Your task to perform on an android device: Do I have any events this weekend? Image 0: 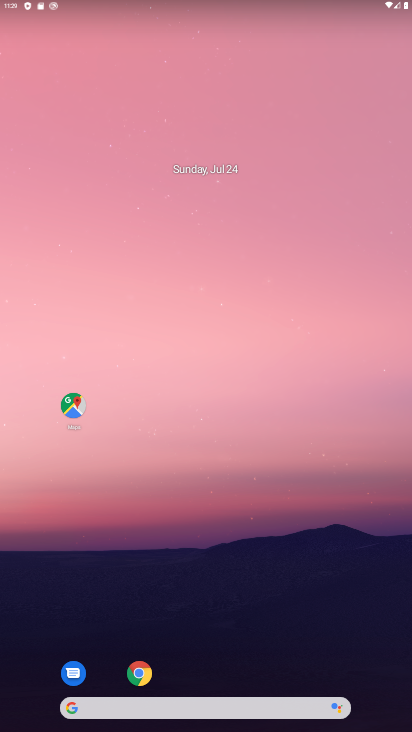
Step 0: drag from (241, 722) to (397, 417)
Your task to perform on an android device: Do I have any events this weekend? Image 1: 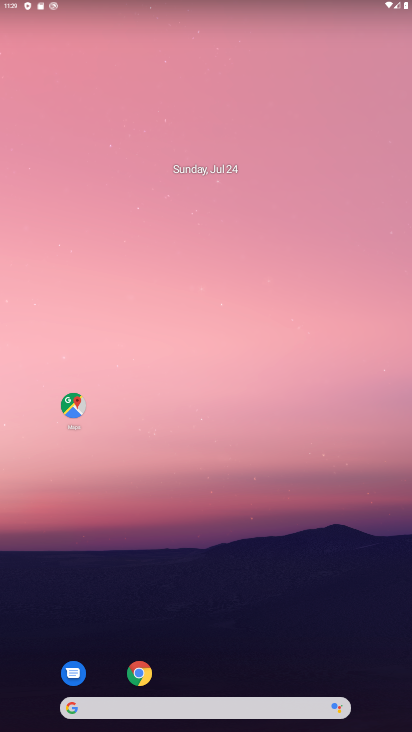
Step 1: drag from (171, 639) to (344, 236)
Your task to perform on an android device: Do I have any events this weekend? Image 2: 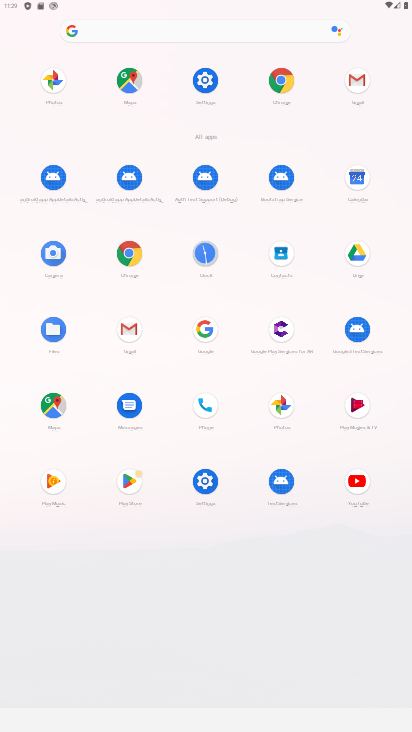
Step 2: click (352, 180)
Your task to perform on an android device: Do I have any events this weekend? Image 3: 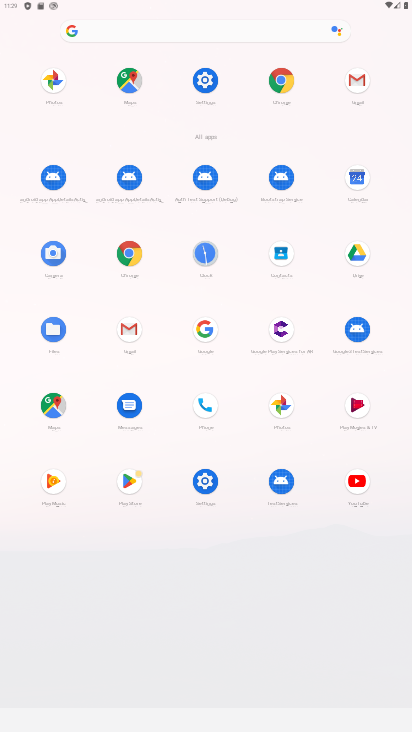
Step 3: click (352, 180)
Your task to perform on an android device: Do I have any events this weekend? Image 4: 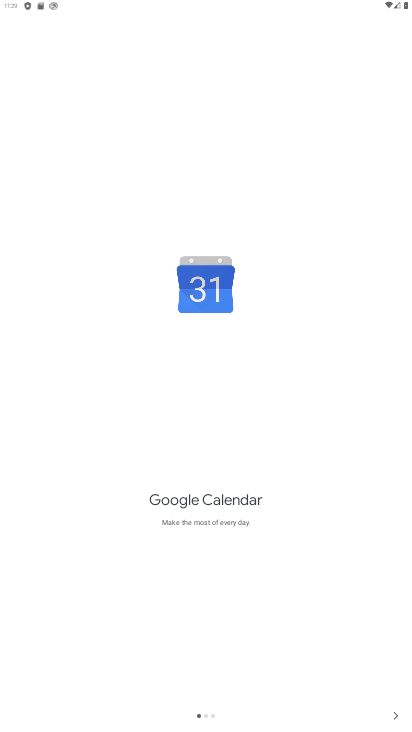
Step 4: click (384, 711)
Your task to perform on an android device: Do I have any events this weekend? Image 5: 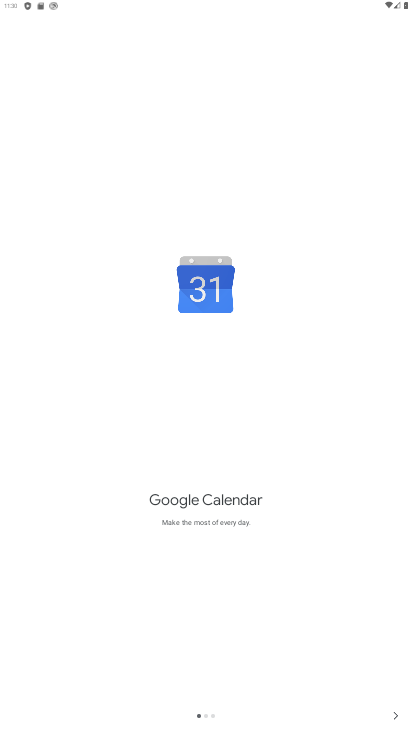
Step 5: click (390, 706)
Your task to perform on an android device: Do I have any events this weekend? Image 6: 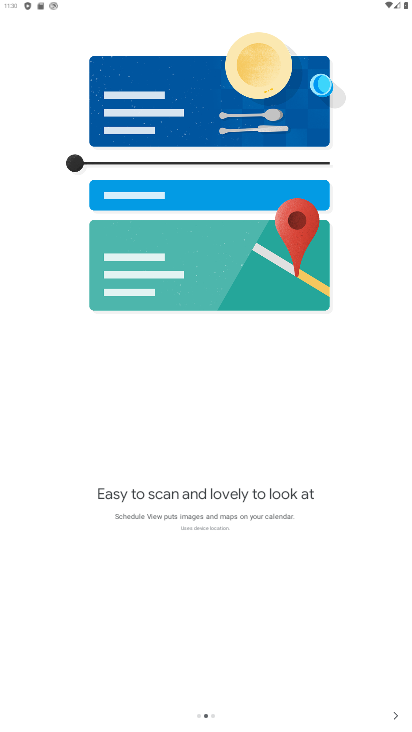
Step 6: click (390, 706)
Your task to perform on an android device: Do I have any events this weekend? Image 7: 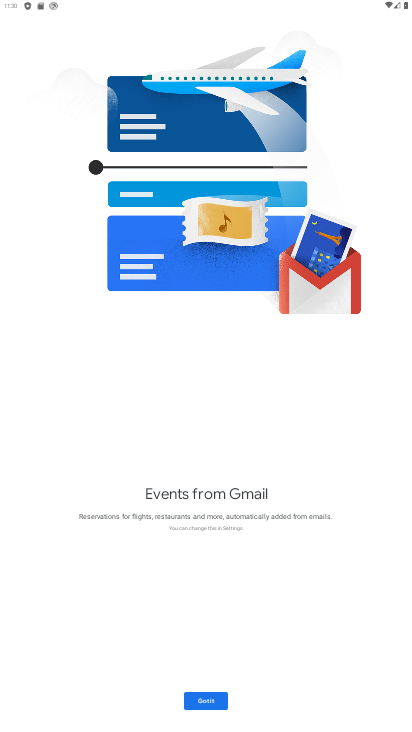
Step 7: click (214, 711)
Your task to perform on an android device: Do I have any events this weekend? Image 8: 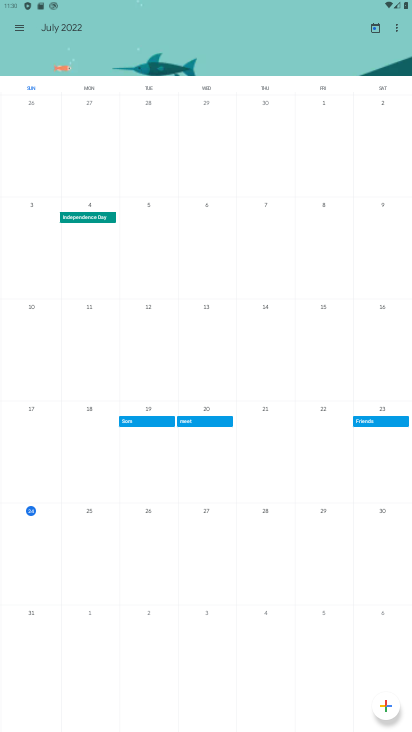
Step 8: click (26, 30)
Your task to perform on an android device: Do I have any events this weekend? Image 9: 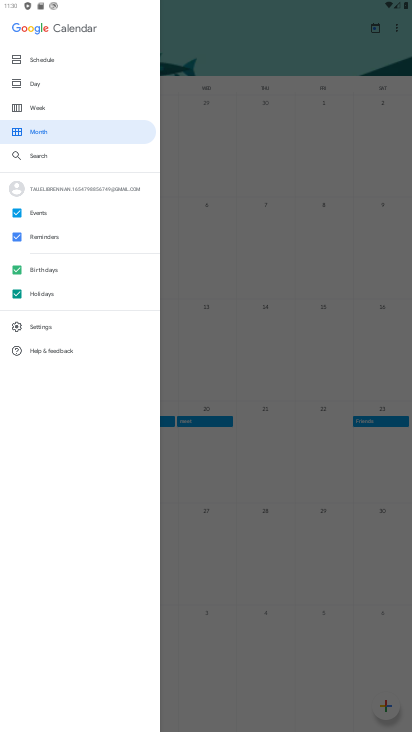
Step 9: click (58, 63)
Your task to perform on an android device: Do I have any events this weekend? Image 10: 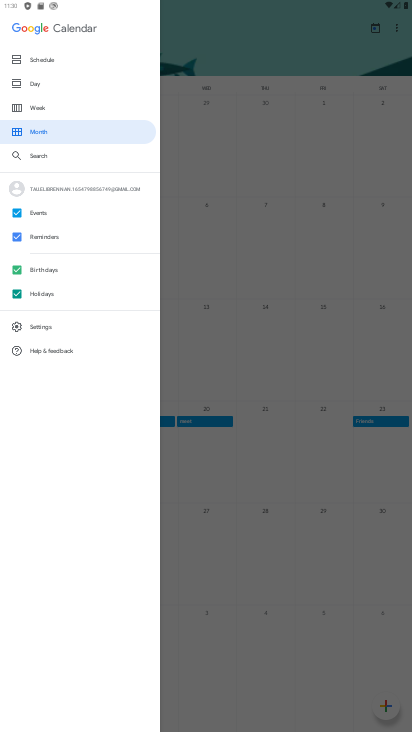
Step 10: click (63, 61)
Your task to perform on an android device: Do I have any events this weekend? Image 11: 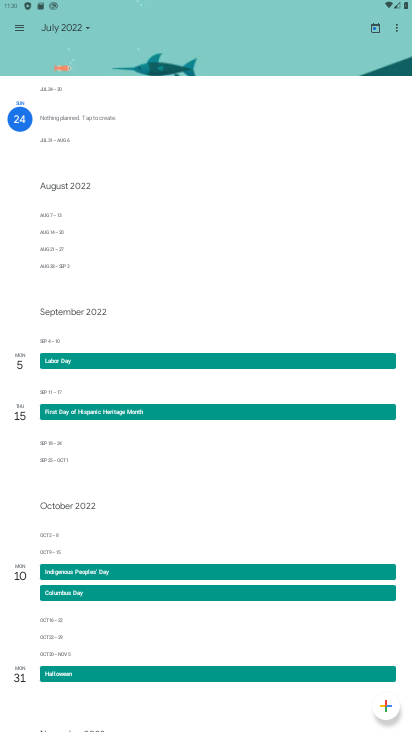
Step 11: task complete